Your task to perform on an android device: Add macbook to the cart on ebay, then select checkout. Image 0: 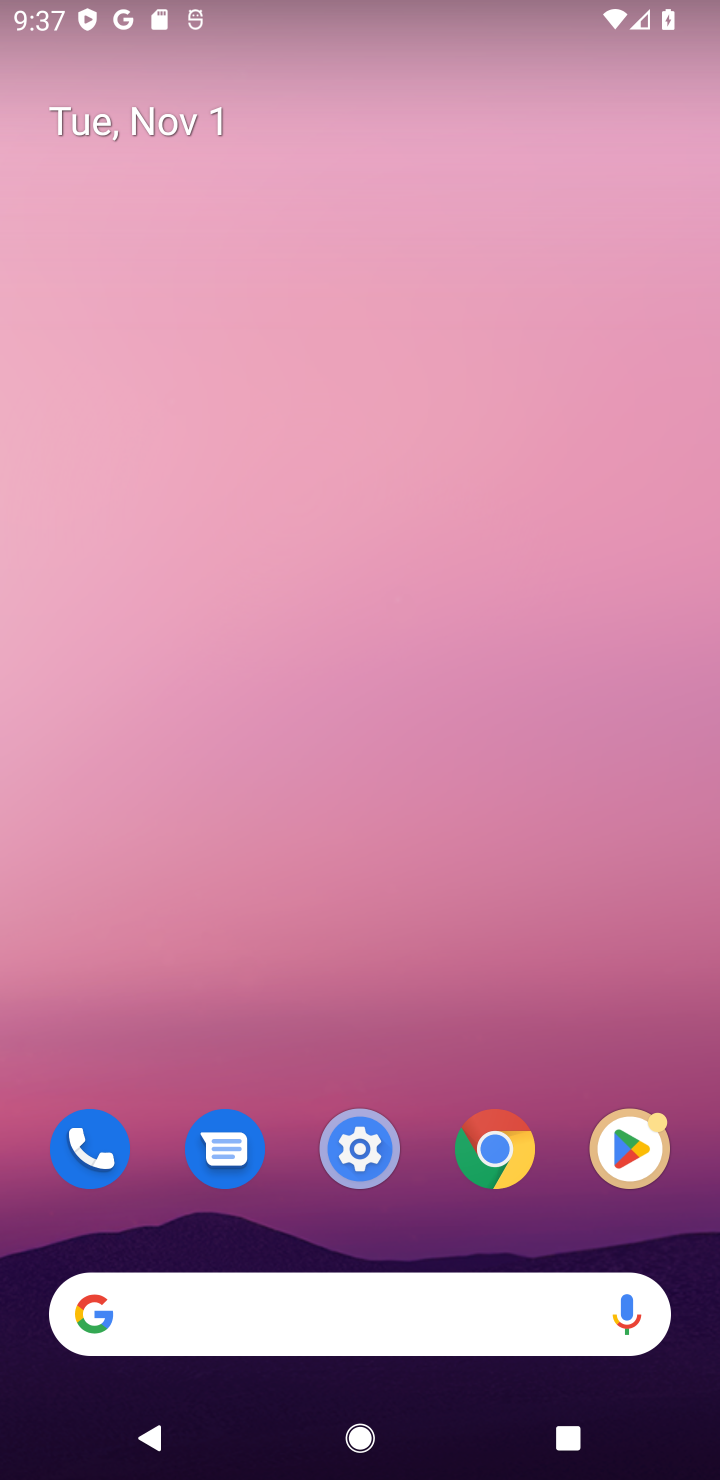
Step 0: press home button
Your task to perform on an android device: Add macbook to the cart on ebay, then select checkout. Image 1: 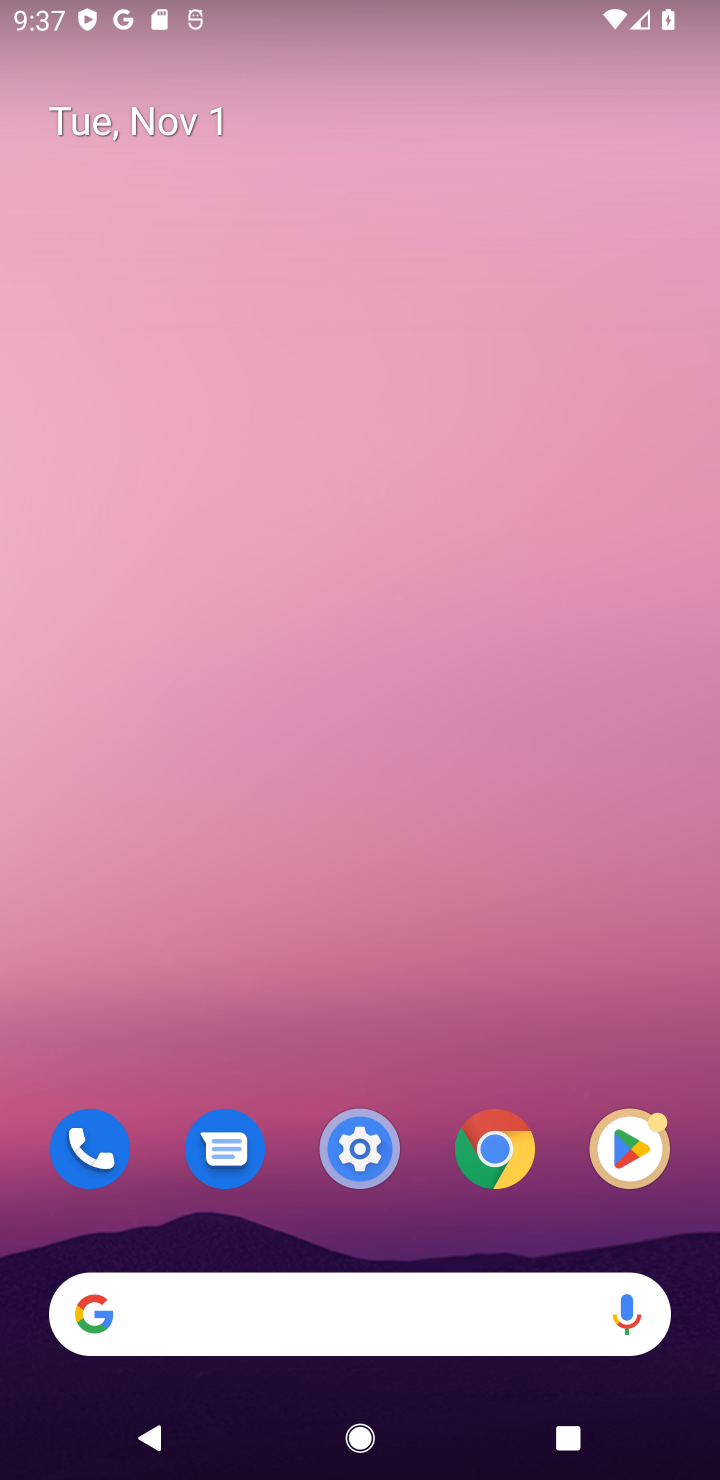
Step 1: click (137, 1307)
Your task to perform on an android device: Add macbook to the cart on ebay, then select checkout. Image 2: 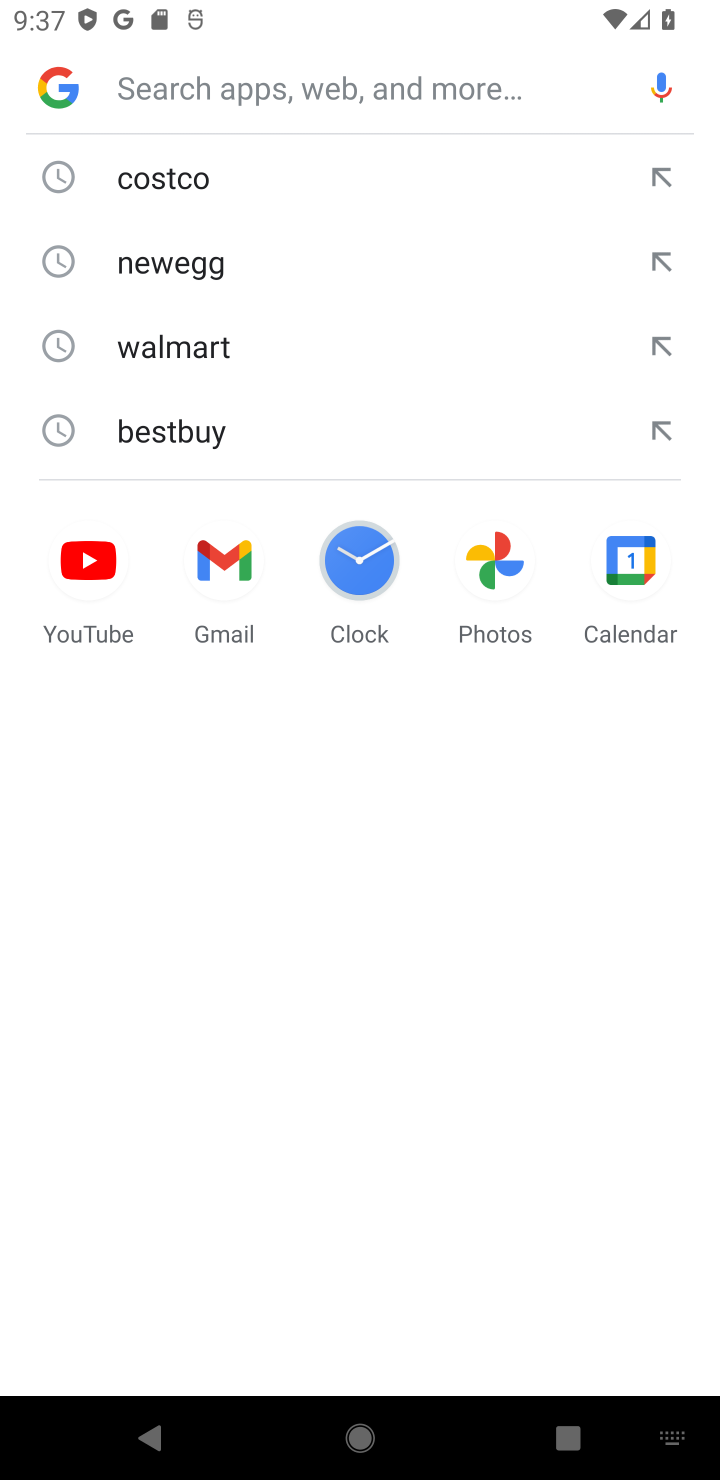
Step 2: type "ebay"
Your task to perform on an android device: Add macbook to the cart on ebay, then select checkout. Image 3: 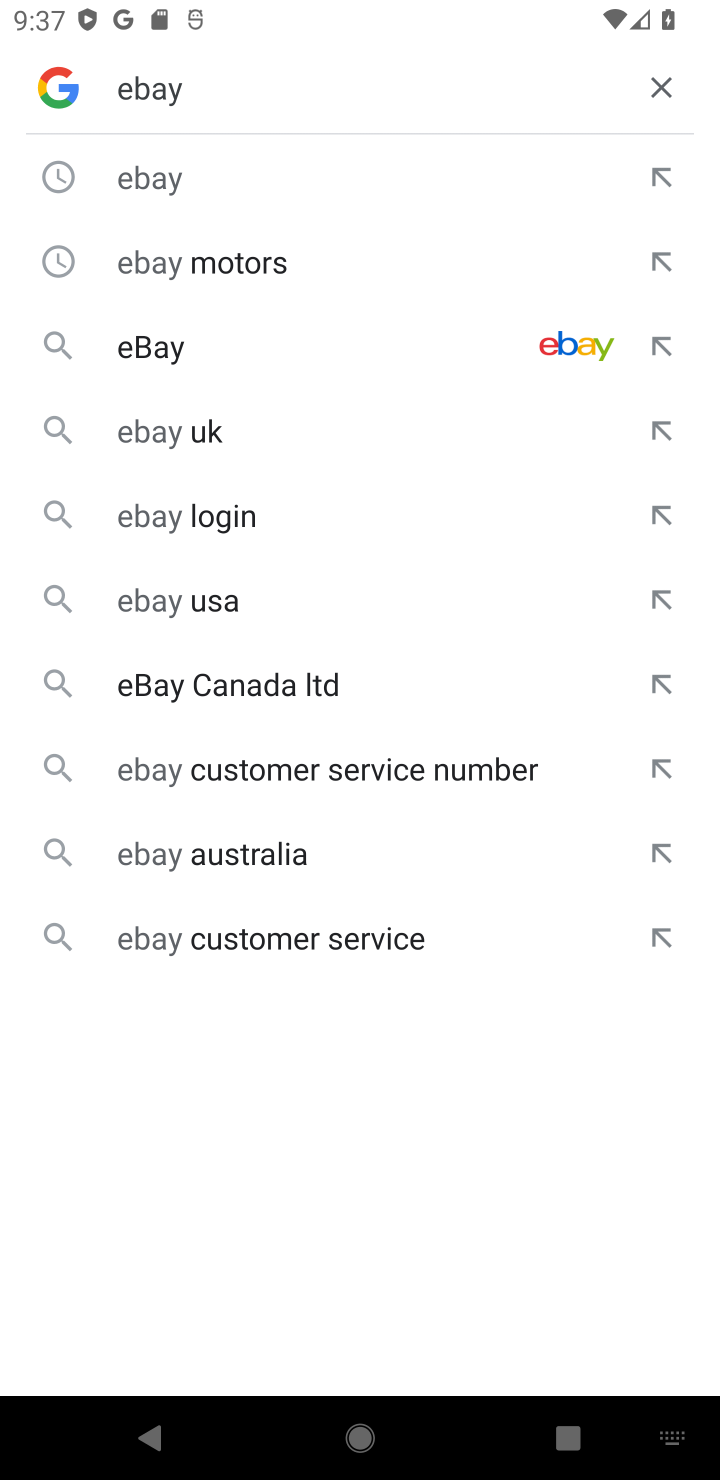
Step 3: press enter
Your task to perform on an android device: Add macbook to the cart on ebay, then select checkout. Image 4: 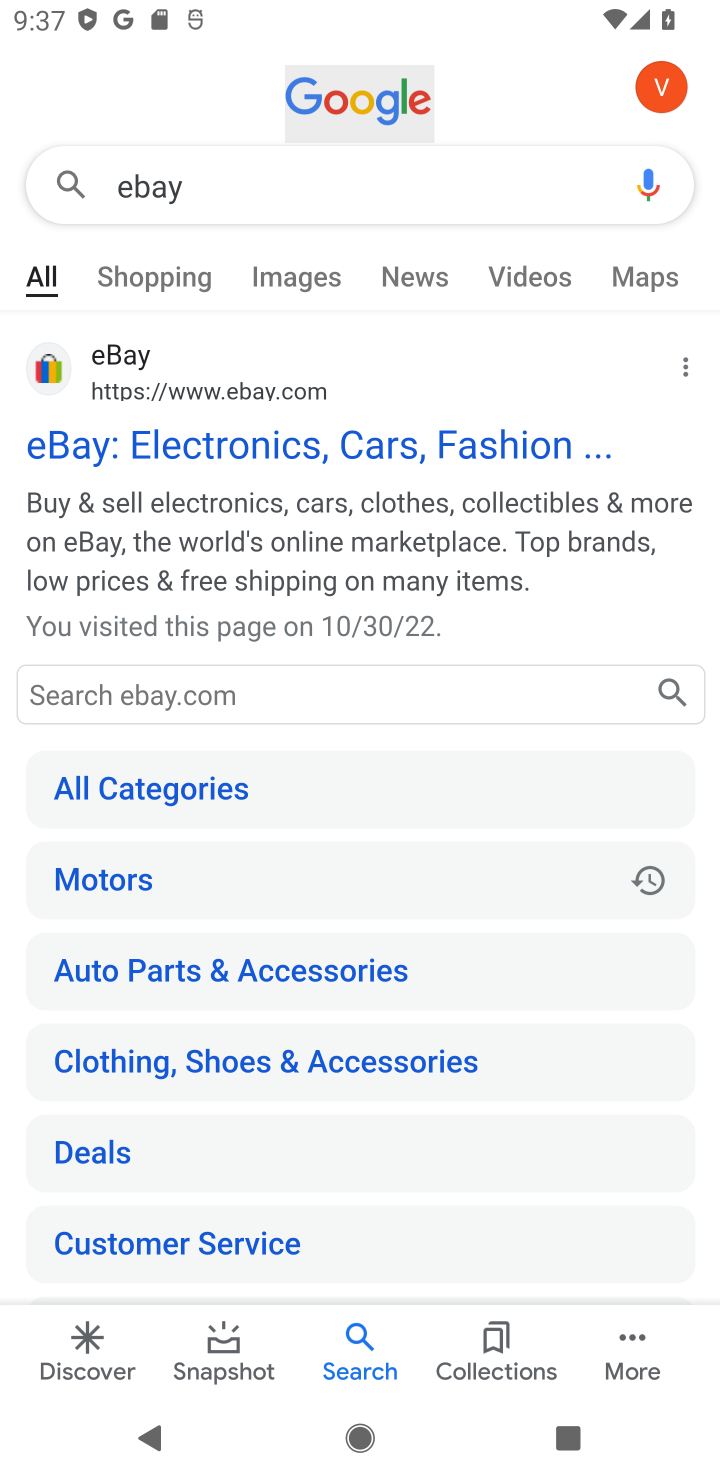
Step 4: click (434, 452)
Your task to perform on an android device: Add macbook to the cart on ebay, then select checkout. Image 5: 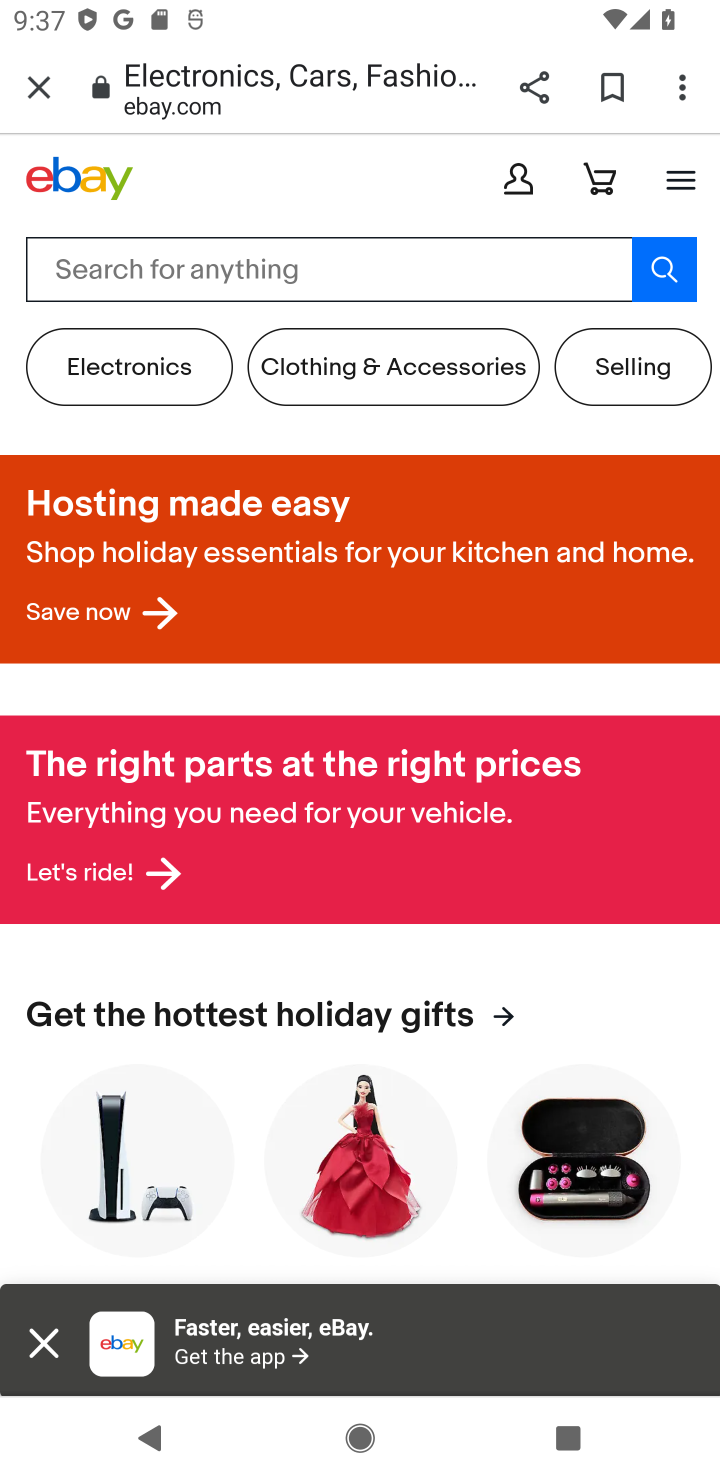
Step 5: click (122, 265)
Your task to perform on an android device: Add macbook to the cart on ebay, then select checkout. Image 6: 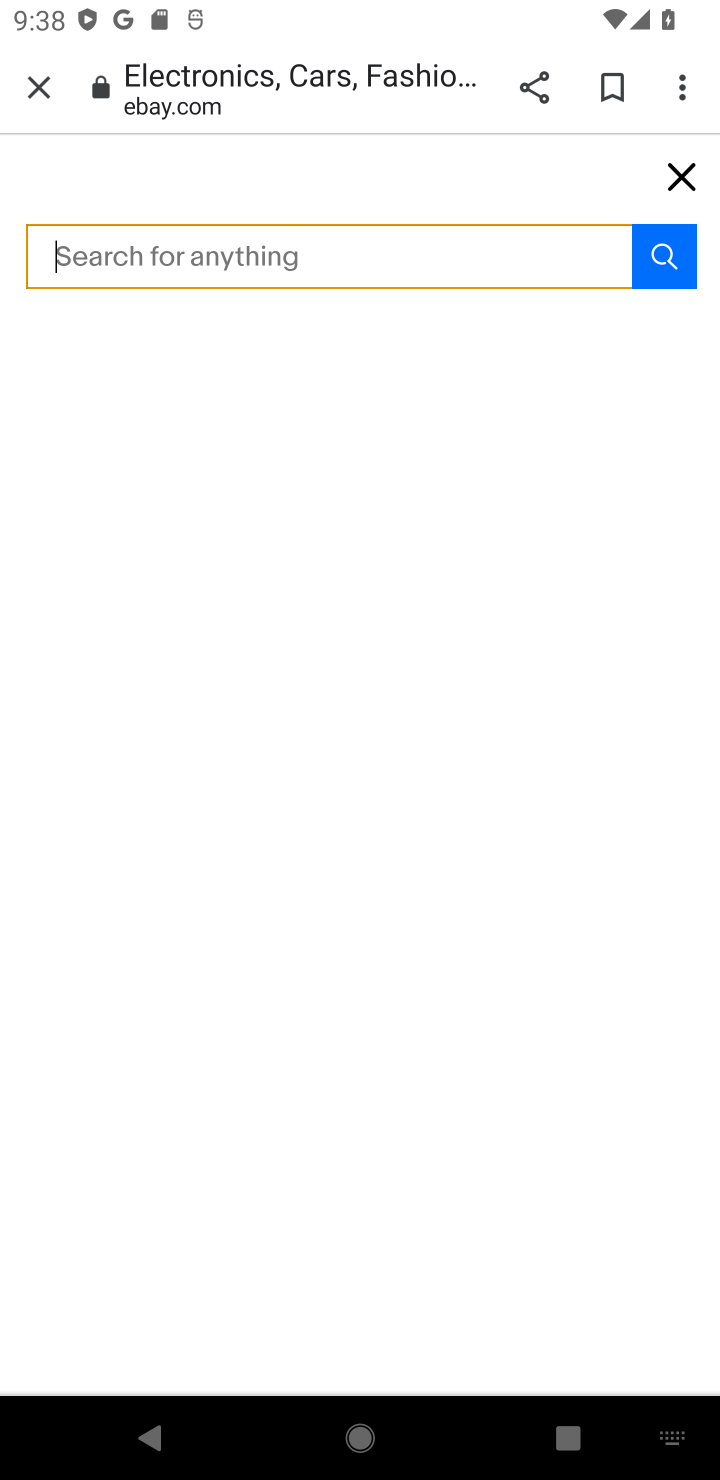
Step 6: type "macbook"
Your task to perform on an android device: Add macbook to the cart on ebay, then select checkout. Image 7: 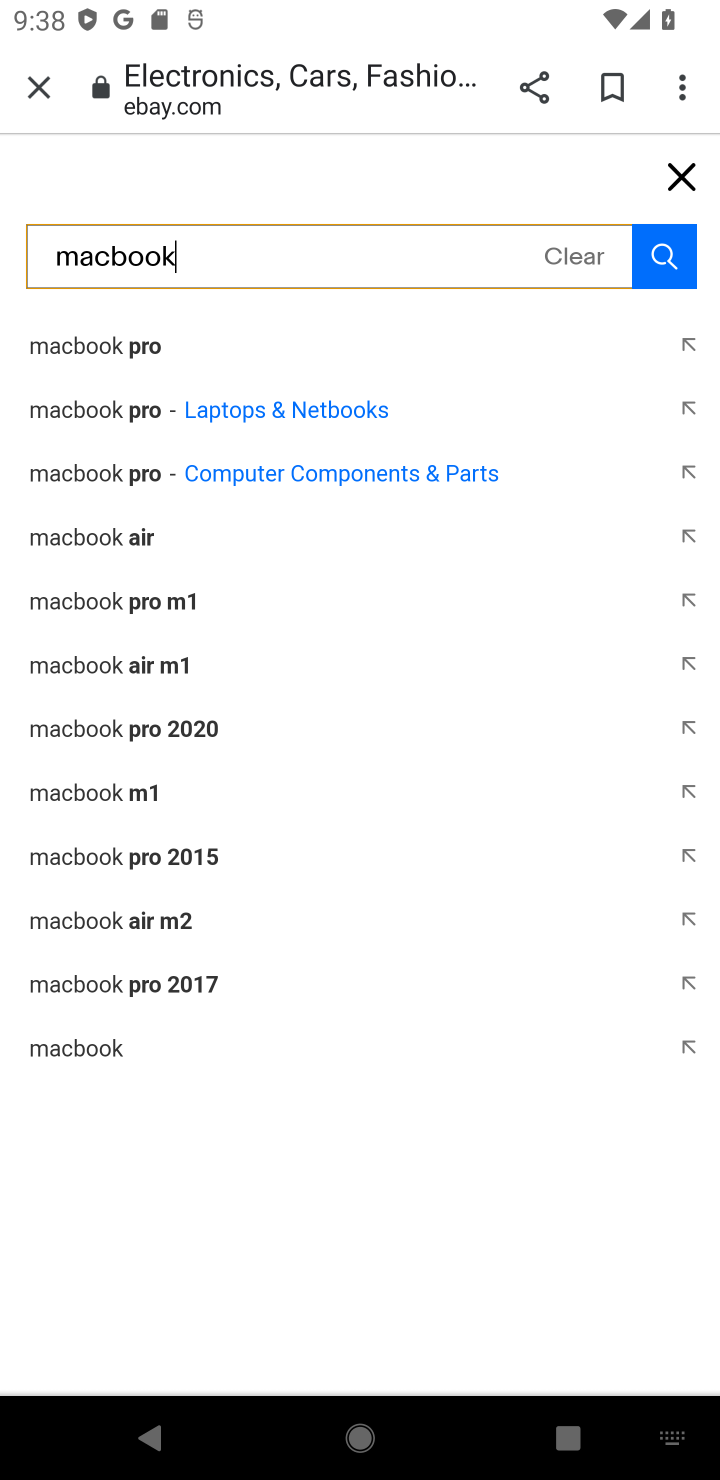
Step 7: click (662, 265)
Your task to perform on an android device: Add macbook to the cart on ebay, then select checkout. Image 8: 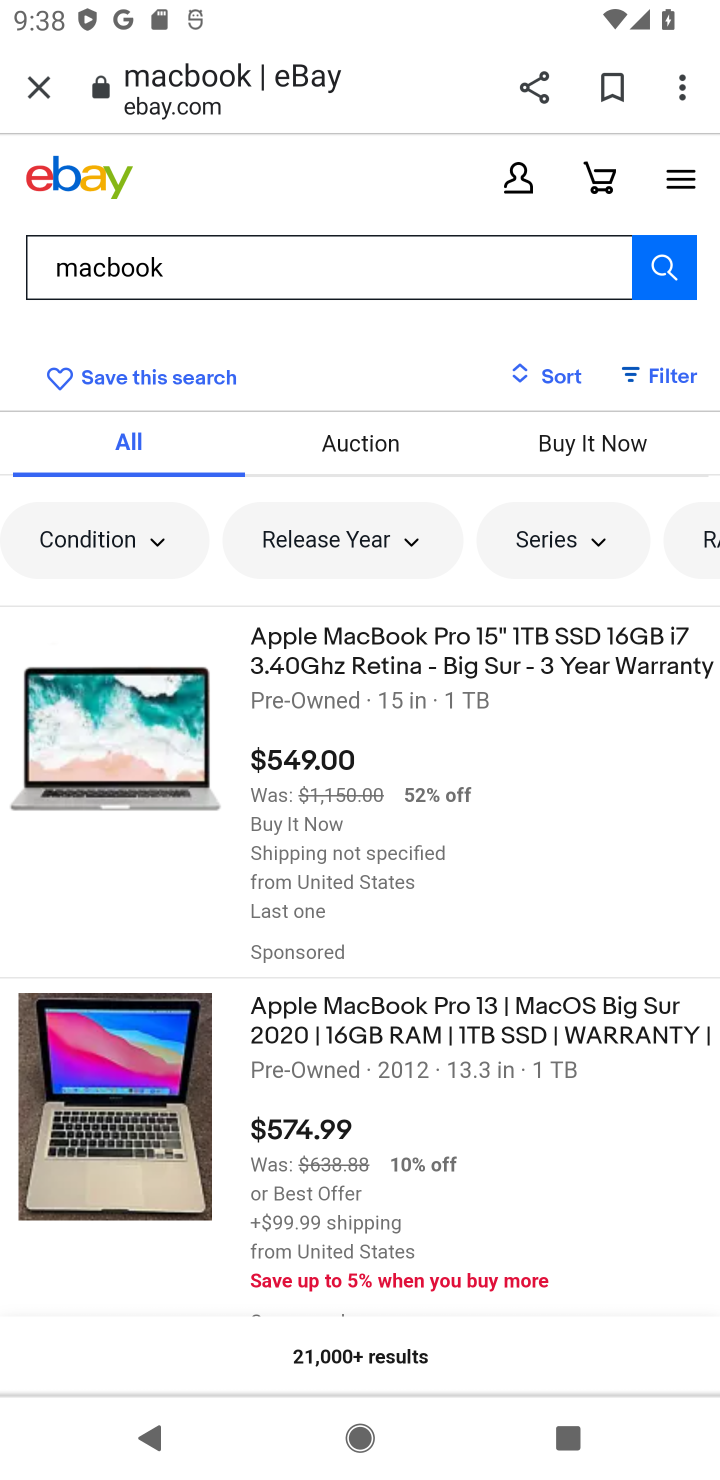
Step 8: click (419, 661)
Your task to perform on an android device: Add macbook to the cart on ebay, then select checkout. Image 9: 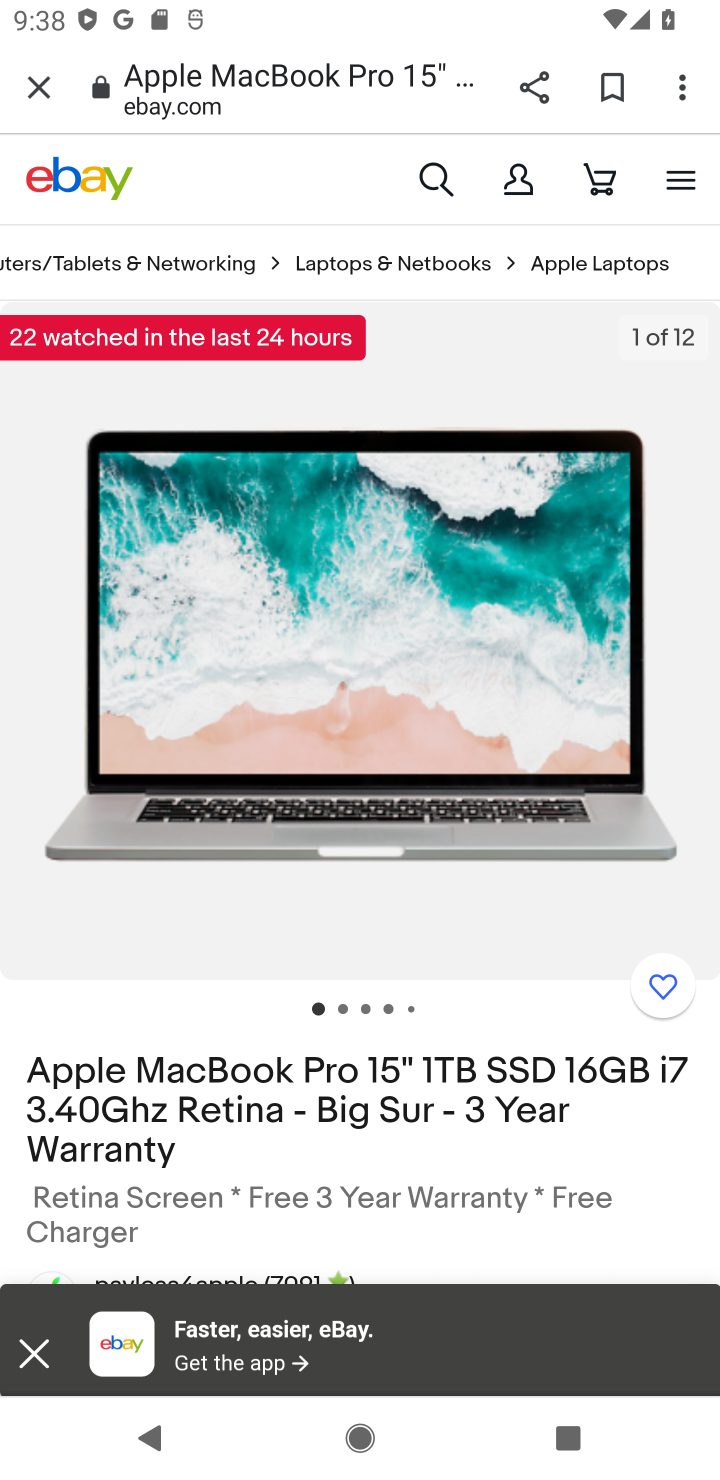
Step 9: drag from (392, 1241) to (390, 551)
Your task to perform on an android device: Add macbook to the cart on ebay, then select checkout. Image 10: 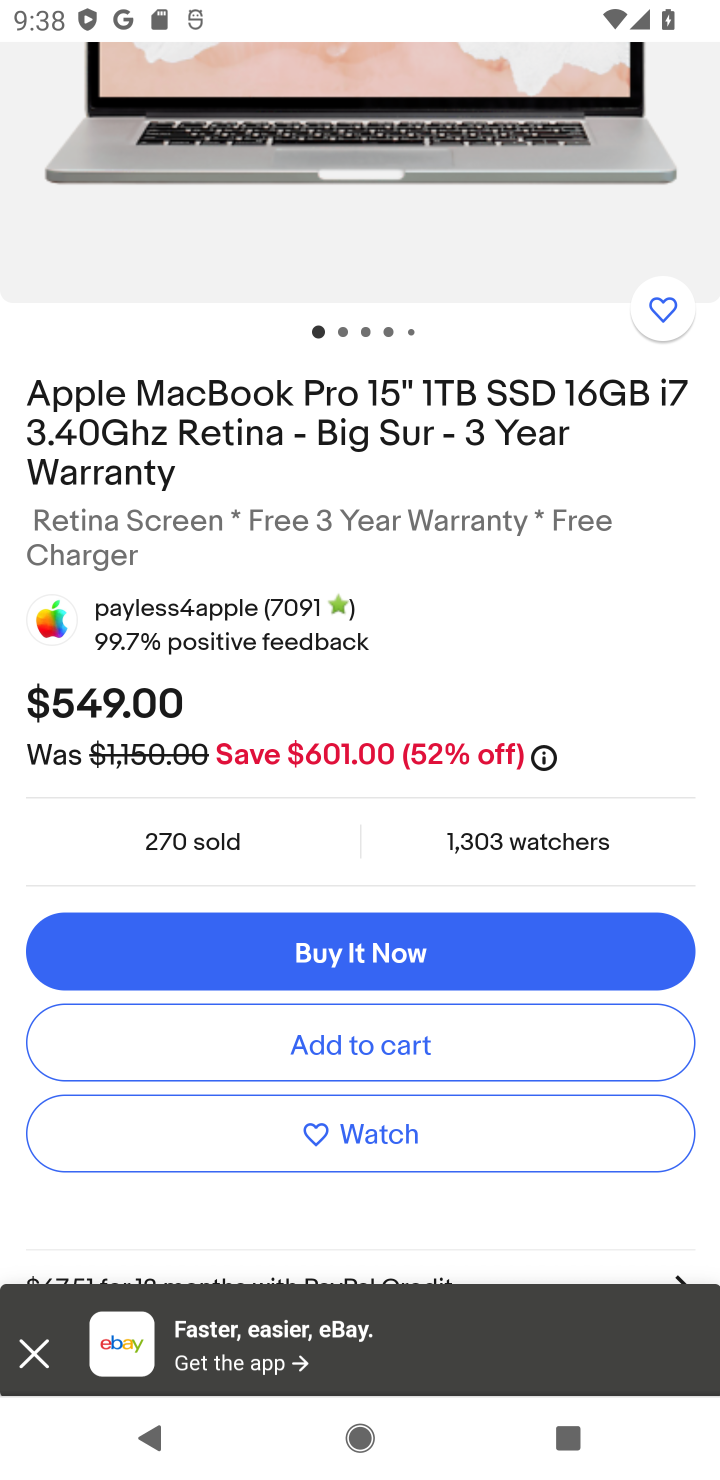
Step 10: click (342, 1052)
Your task to perform on an android device: Add macbook to the cart on ebay, then select checkout. Image 11: 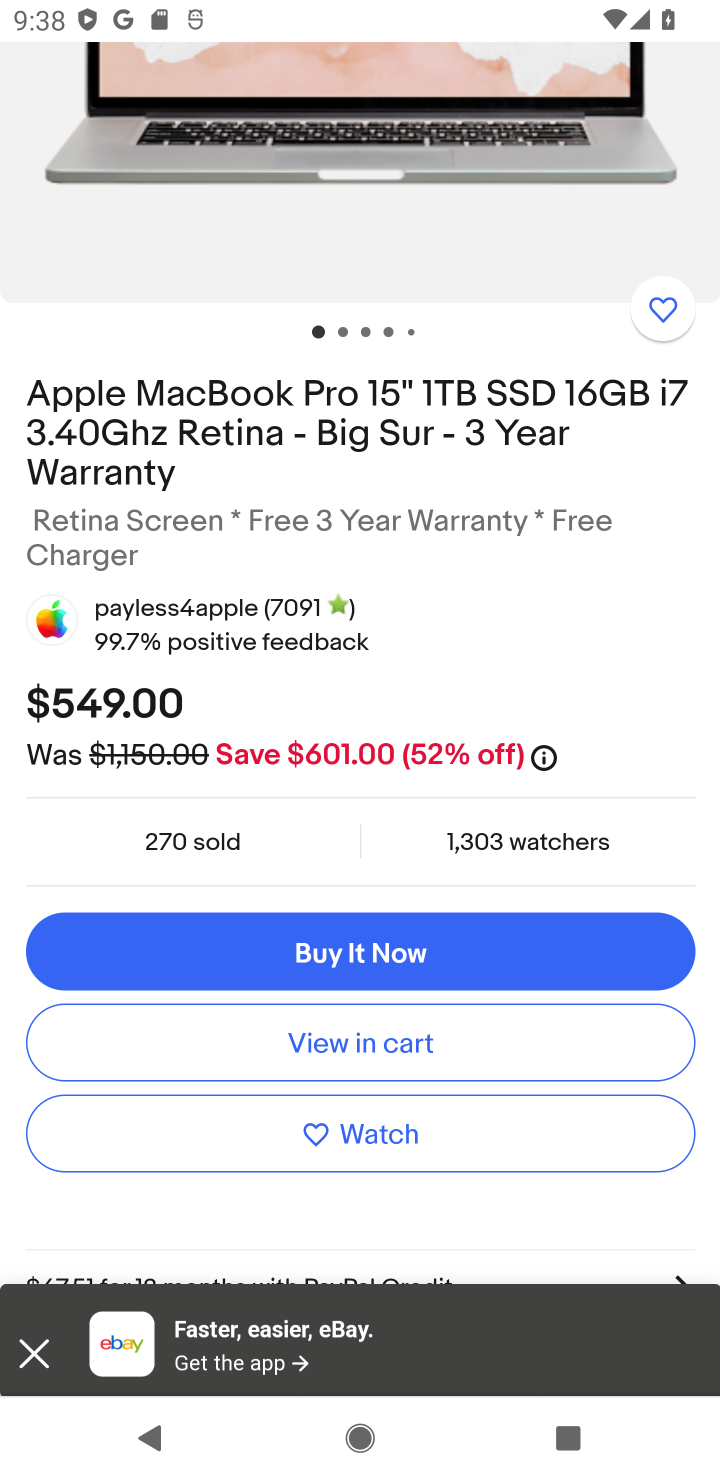
Step 11: click (366, 1046)
Your task to perform on an android device: Add macbook to the cart on ebay, then select checkout. Image 12: 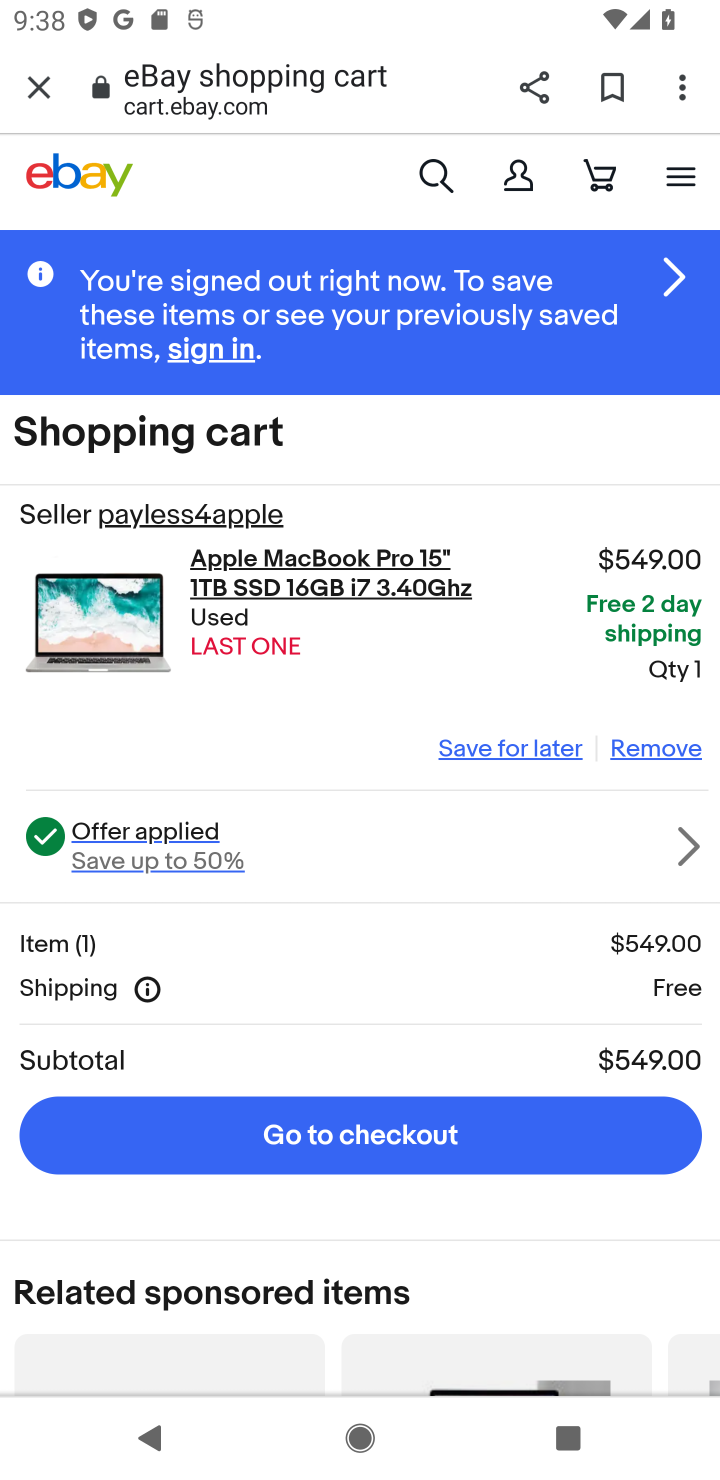
Step 12: click (330, 1131)
Your task to perform on an android device: Add macbook to the cart on ebay, then select checkout. Image 13: 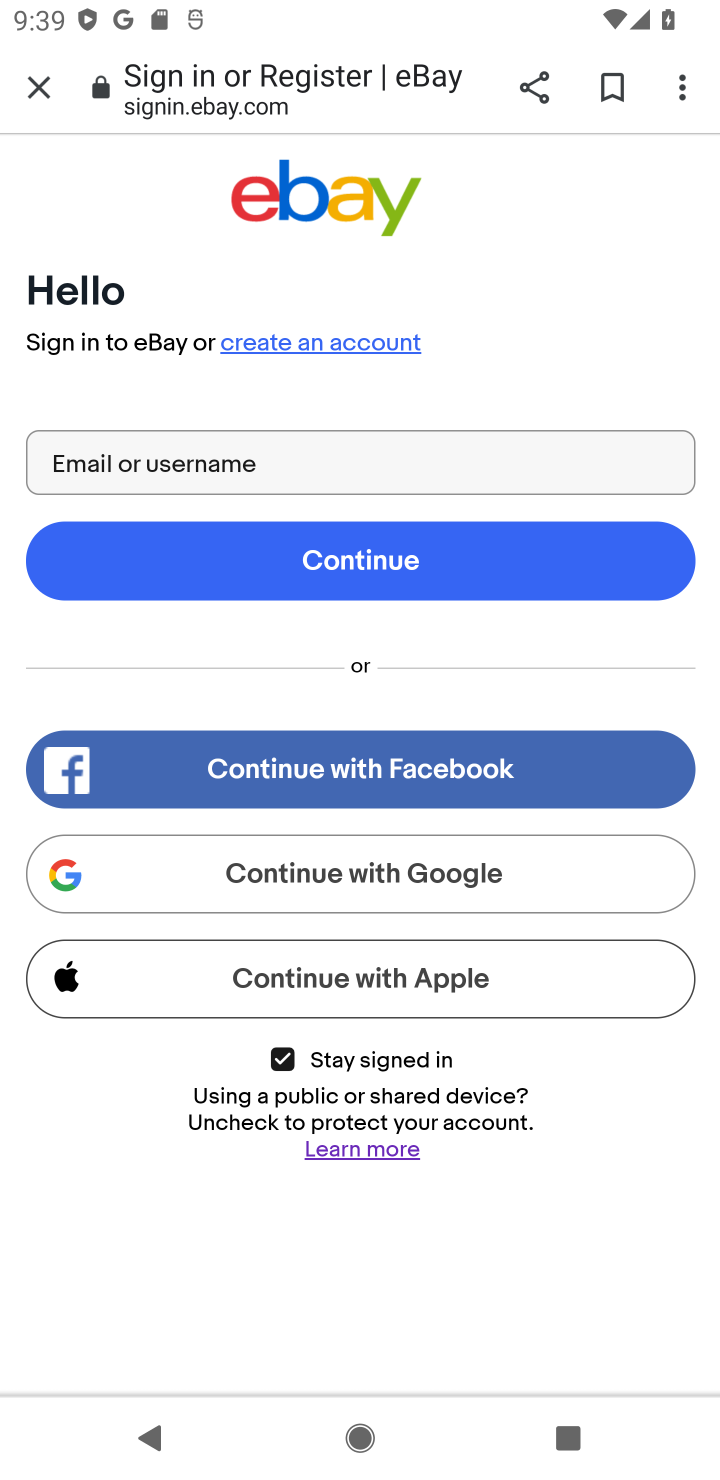
Step 13: task complete